Your task to perform on an android device: toggle notifications settings in the gmail app Image 0: 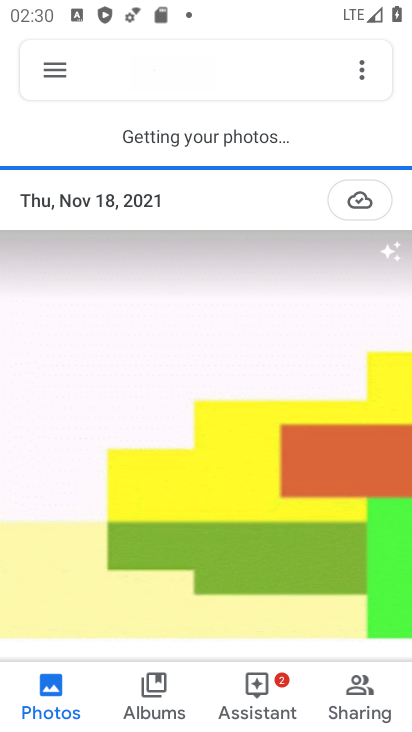
Step 0: press home button
Your task to perform on an android device: toggle notifications settings in the gmail app Image 1: 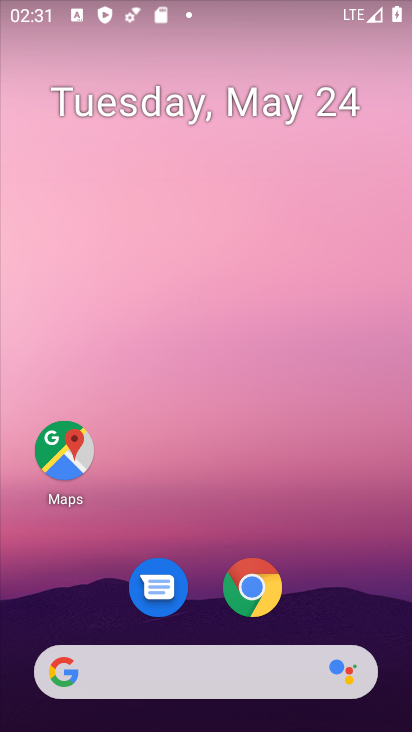
Step 1: drag from (234, 722) to (248, 81)
Your task to perform on an android device: toggle notifications settings in the gmail app Image 2: 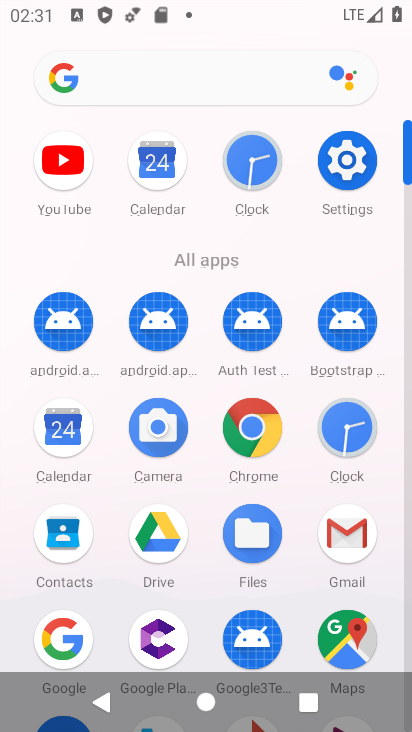
Step 2: click (334, 507)
Your task to perform on an android device: toggle notifications settings in the gmail app Image 3: 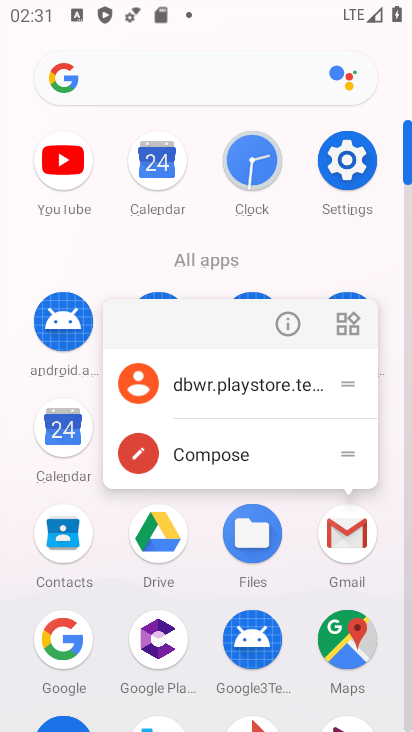
Step 3: click (271, 310)
Your task to perform on an android device: toggle notifications settings in the gmail app Image 4: 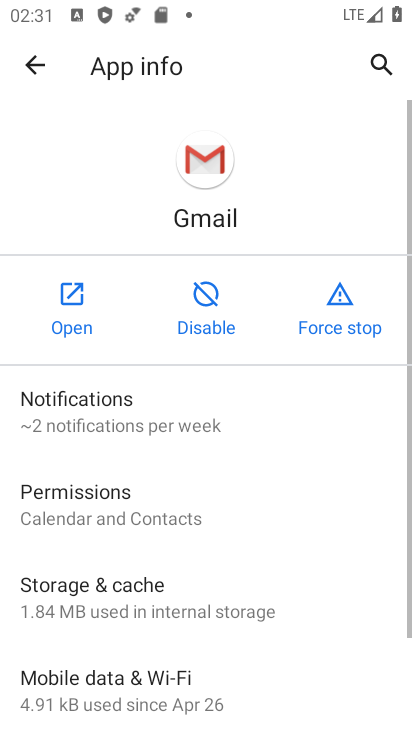
Step 4: click (147, 419)
Your task to perform on an android device: toggle notifications settings in the gmail app Image 5: 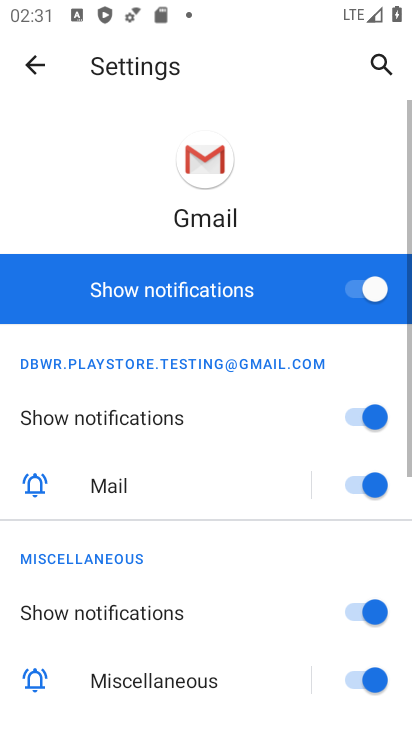
Step 5: click (372, 286)
Your task to perform on an android device: toggle notifications settings in the gmail app Image 6: 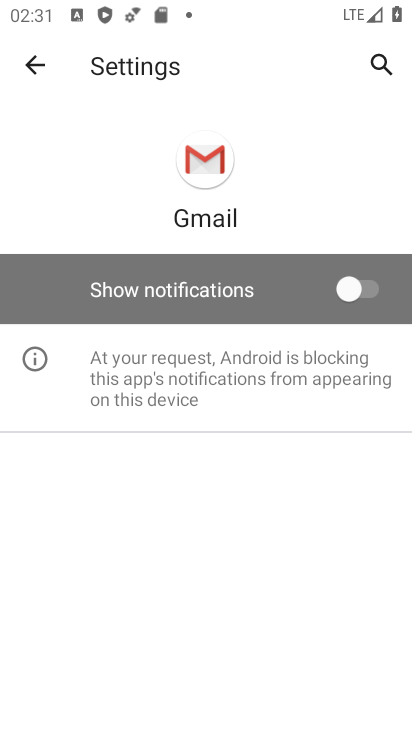
Step 6: task complete